Your task to perform on an android device: open app "DoorDash - Food Delivery" Image 0: 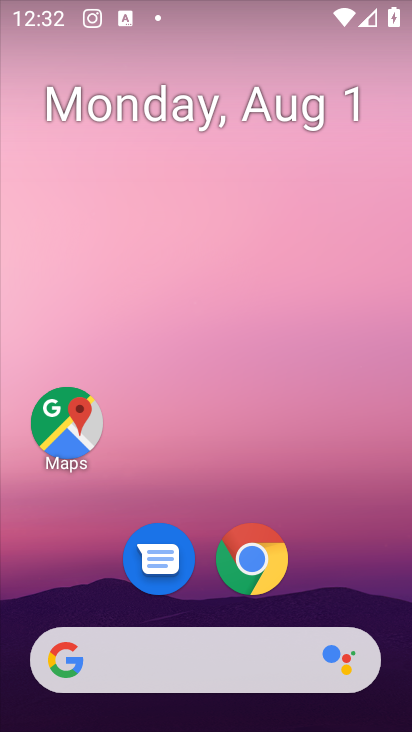
Step 0: drag from (67, 562) to (226, 11)
Your task to perform on an android device: open app "DoorDash - Food Delivery" Image 1: 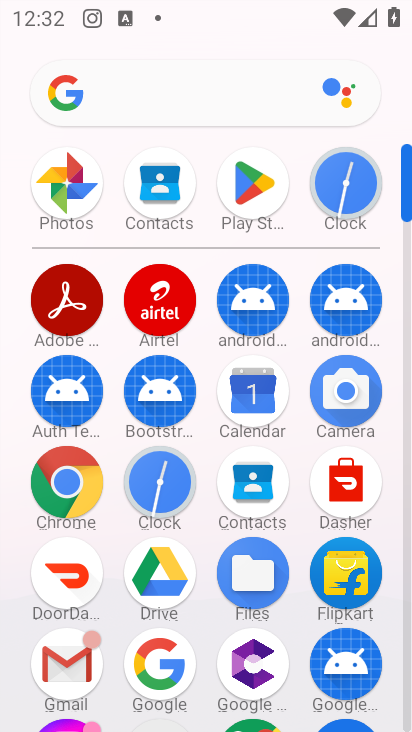
Step 1: click (263, 180)
Your task to perform on an android device: open app "DoorDash - Food Delivery" Image 2: 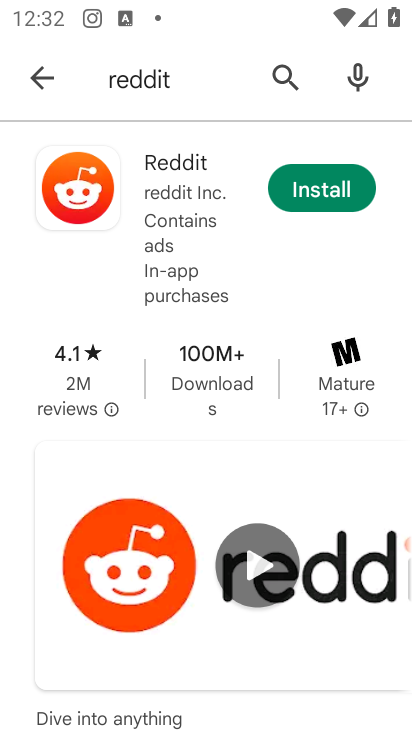
Step 2: click (278, 75)
Your task to perform on an android device: open app "DoorDash - Food Delivery" Image 3: 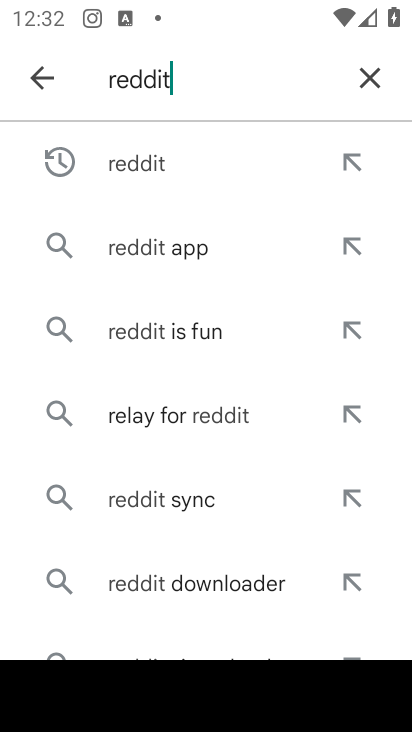
Step 3: click (373, 68)
Your task to perform on an android device: open app "DoorDash - Food Delivery" Image 4: 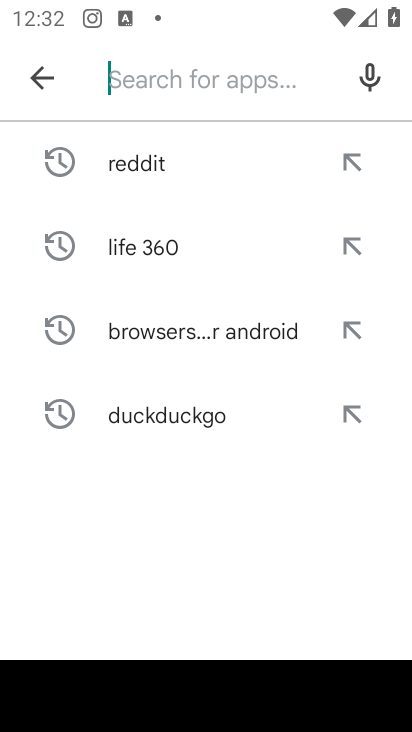
Step 4: click (146, 60)
Your task to perform on an android device: open app "DoorDash - Food Delivery" Image 5: 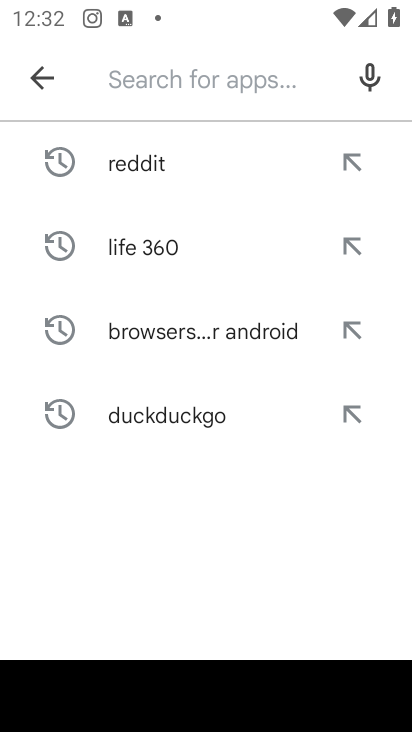
Step 5: type "doordash"
Your task to perform on an android device: open app "DoorDash - Food Delivery" Image 6: 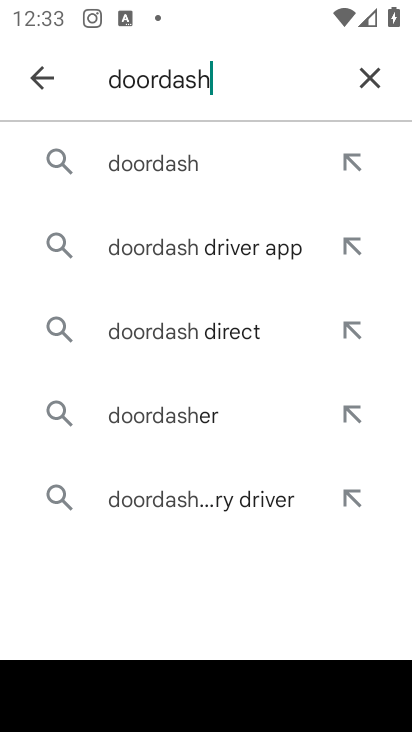
Step 6: click (190, 169)
Your task to perform on an android device: open app "DoorDash - Food Delivery" Image 7: 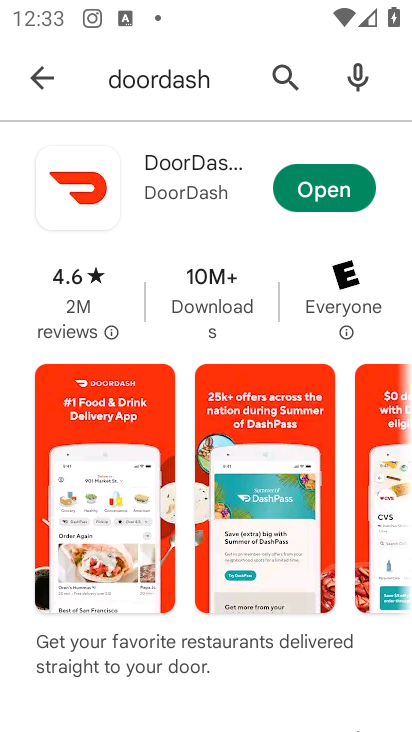
Step 7: click (305, 188)
Your task to perform on an android device: open app "DoorDash - Food Delivery" Image 8: 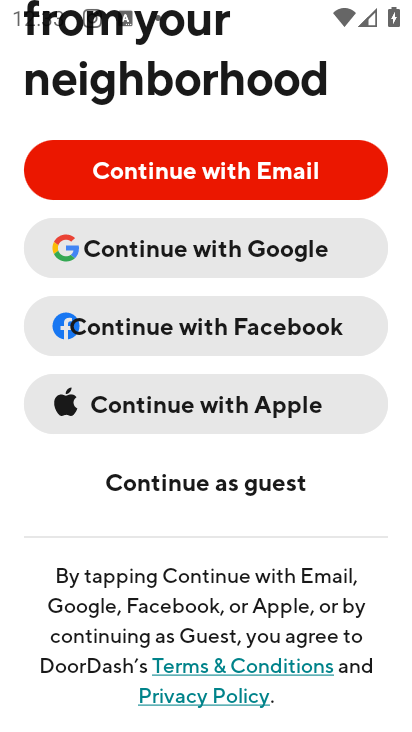
Step 8: task complete